Your task to perform on an android device: open app "Venmo" Image 0: 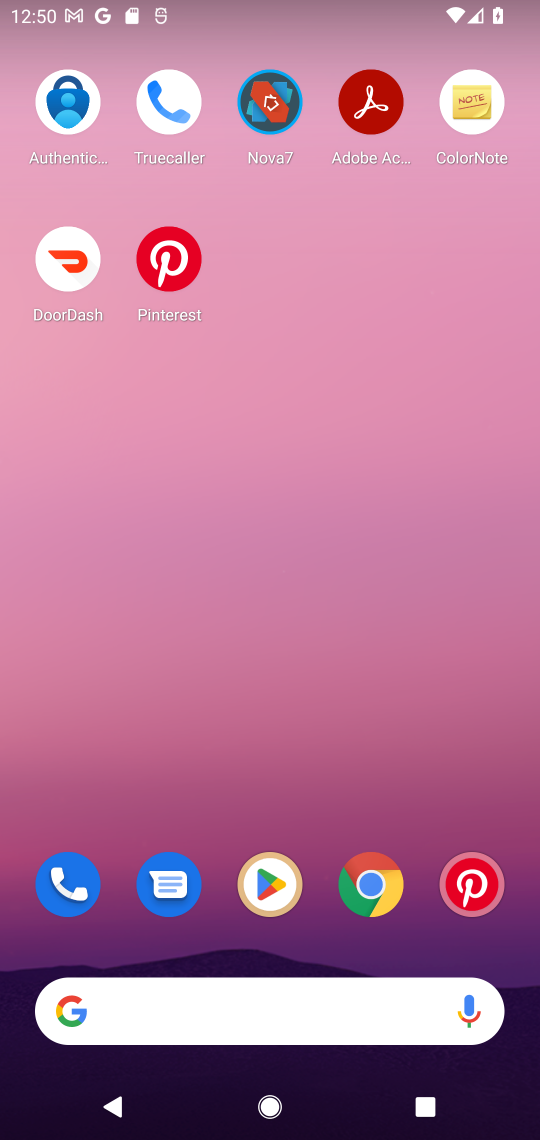
Step 0: drag from (200, 1030) to (222, 301)
Your task to perform on an android device: open app "Venmo" Image 1: 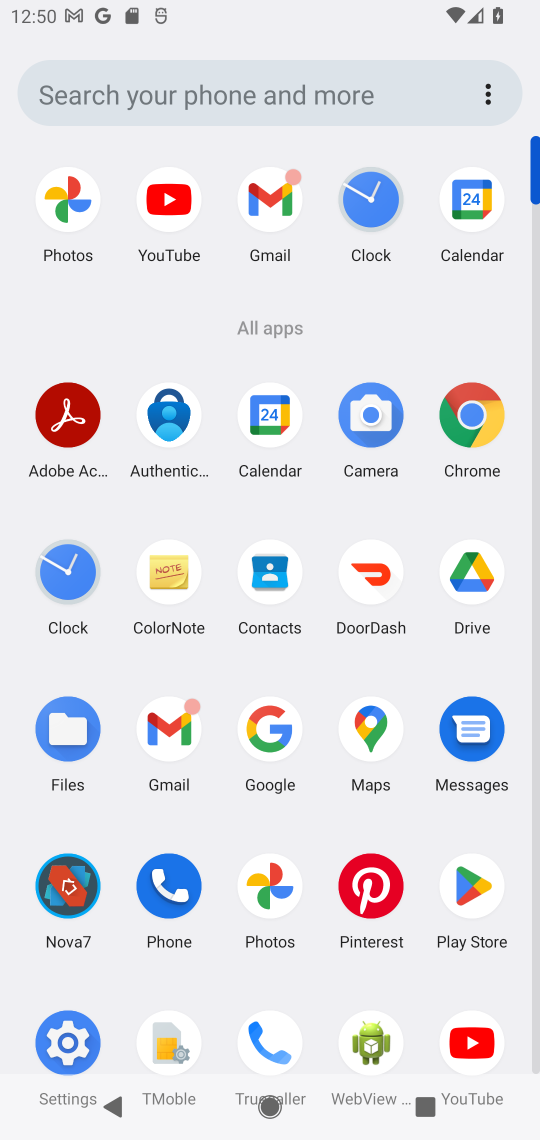
Step 1: click (471, 894)
Your task to perform on an android device: open app "Venmo" Image 2: 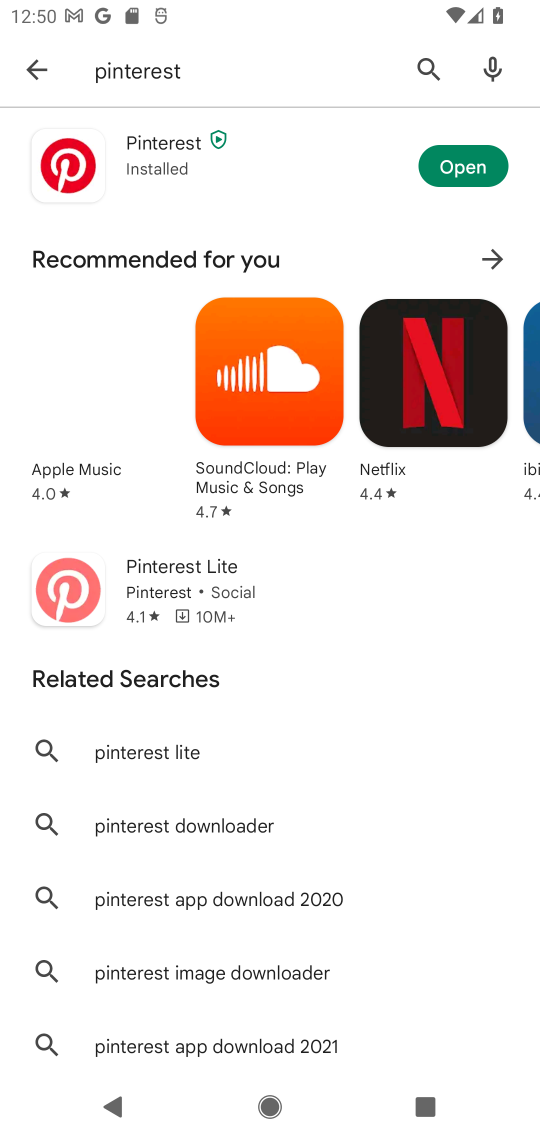
Step 2: press back button
Your task to perform on an android device: open app "Venmo" Image 3: 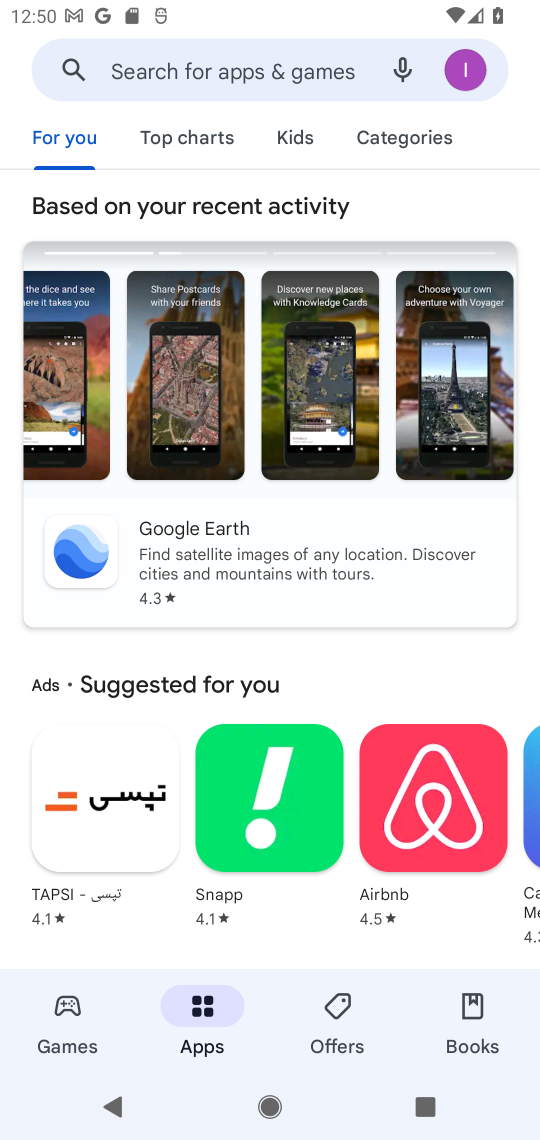
Step 3: click (266, 69)
Your task to perform on an android device: open app "Venmo" Image 4: 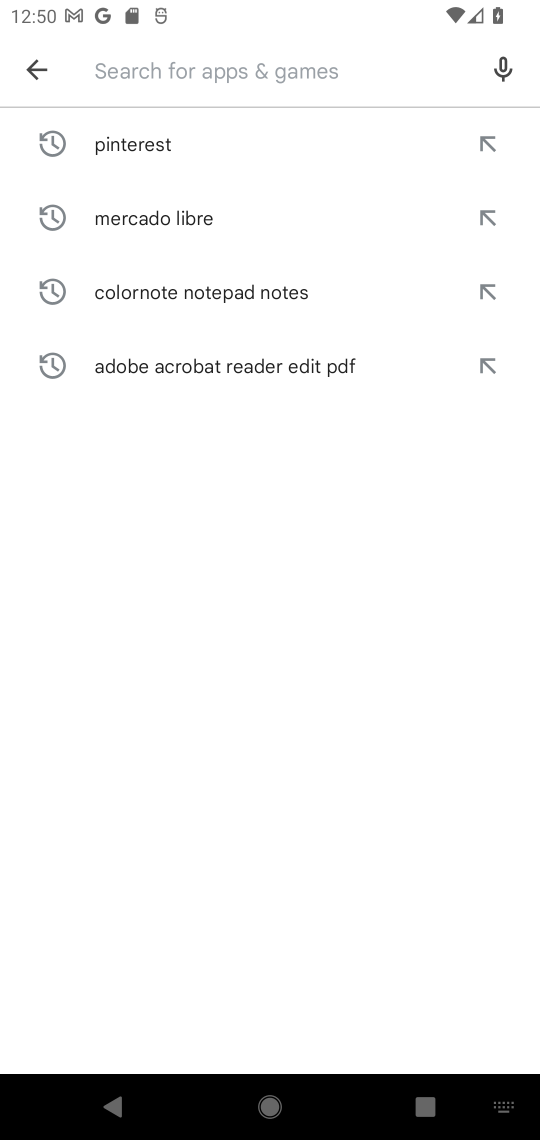
Step 4: type "Venmo"
Your task to perform on an android device: open app "Venmo" Image 5: 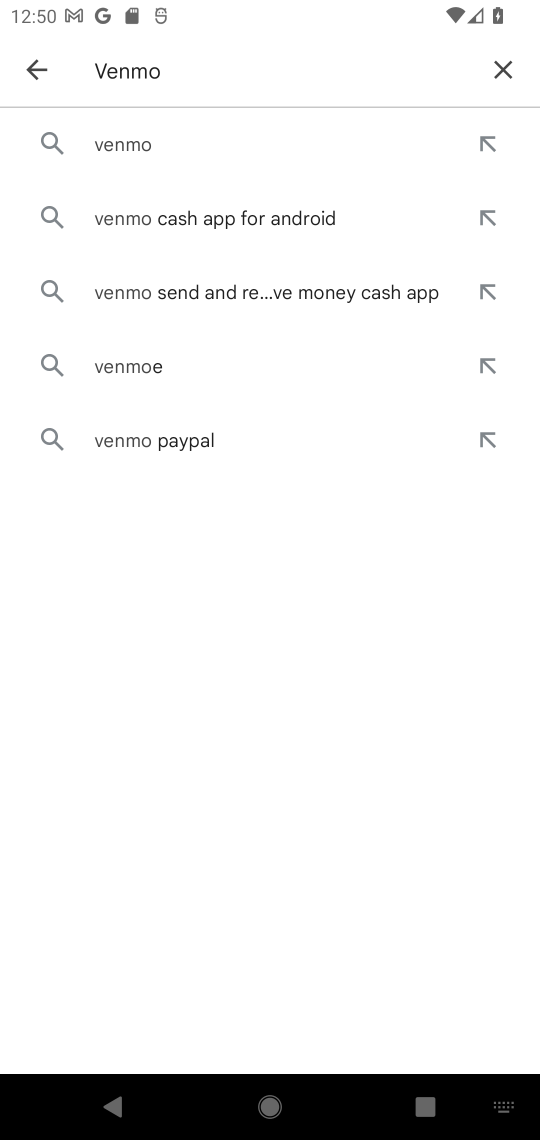
Step 5: click (136, 143)
Your task to perform on an android device: open app "Venmo" Image 6: 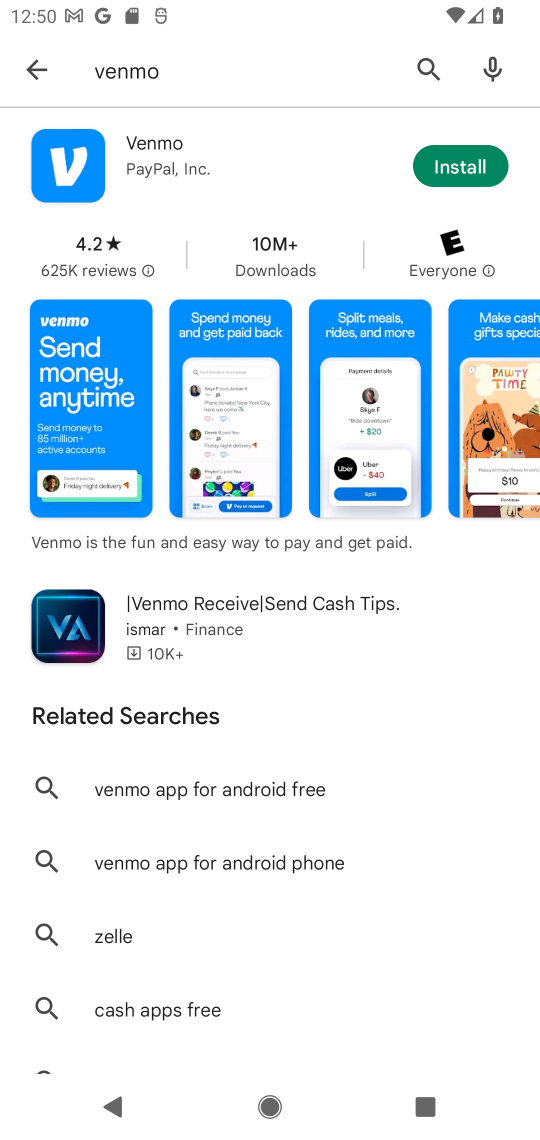
Step 6: task complete